Your task to perform on an android device: turn off notifications settings in the gmail app Image 0: 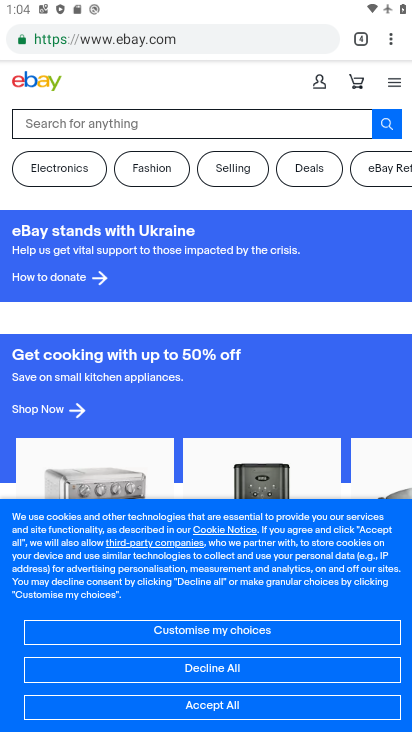
Step 0: press home button
Your task to perform on an android device: turn off notifications settings in the gmail app Image 1: 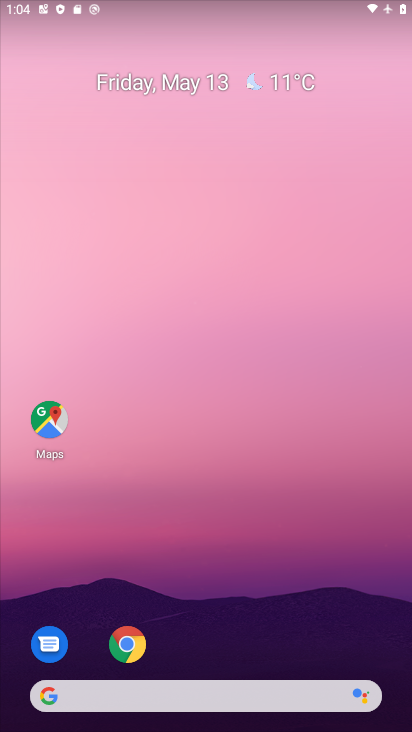
Step 1: drag from (225, 729) to (243, 153)
Your task to perform on an android device: turn off notifications settings in the gmail app Image 2: 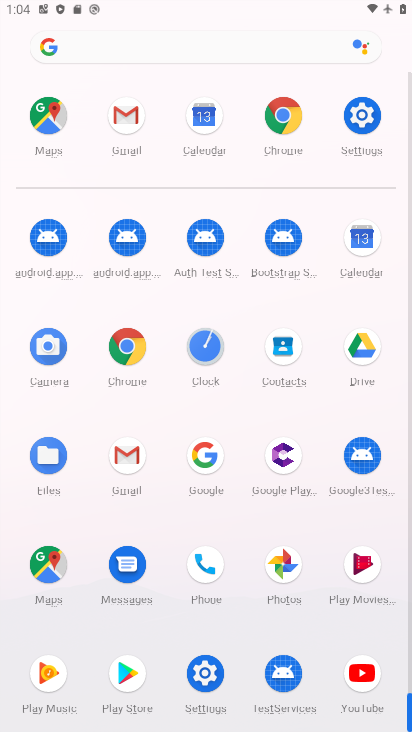
Step 2: click (128, 447)
Your task to perform on an android device: turn off notifications settings in the gmail app Image 3: 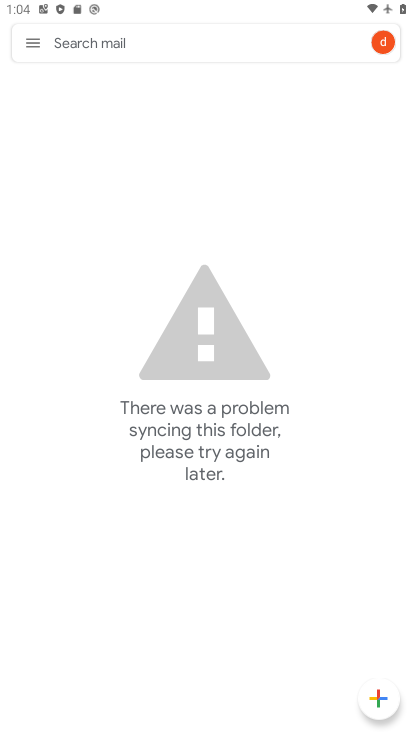
Step 3: click (33, 44)
Your task to perform on an android device: turn off notifications settings in the gmail app Image 4: 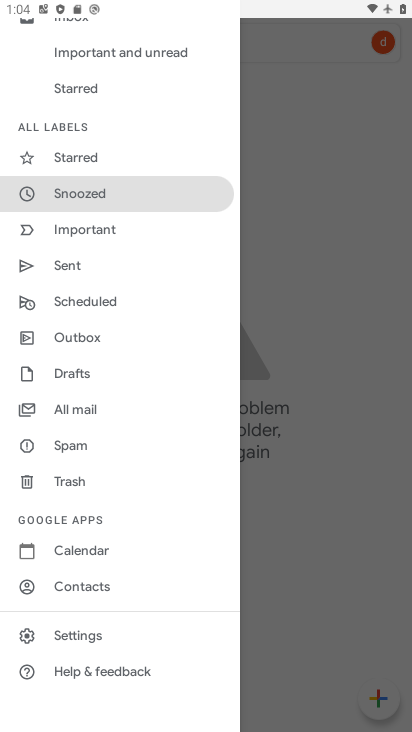
Step 4: click (78, 631)
Your task to perform on an android device: turn off notifications settings in the gmail app Image 5: 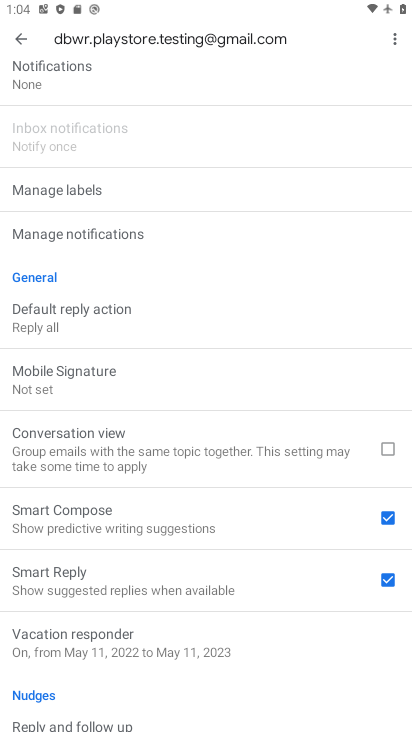
Step 5: task complete